Your task to perform on an android device: remove spam from my inbox in the gmail app Image 0: 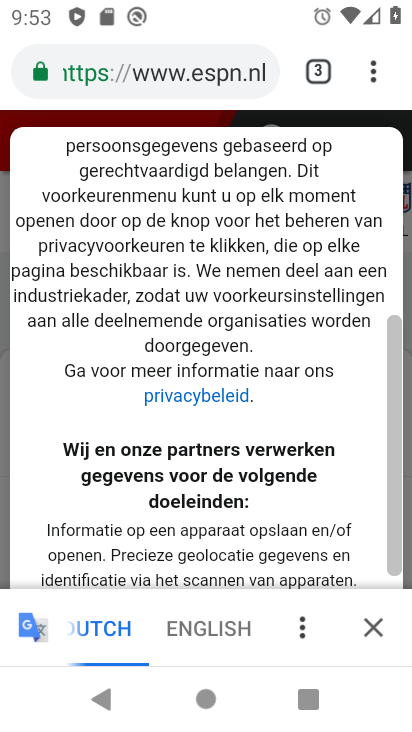
Step 0: press home button
Your task to perform on an android device: remove spam from my inbox in the gmail app Image 1: 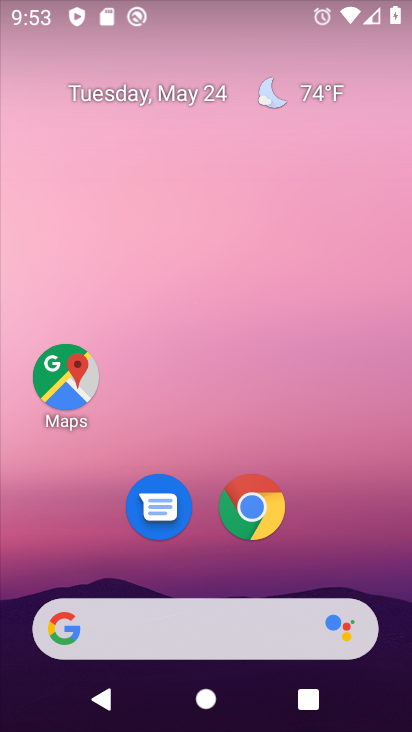
Step 1: drag from (240, 719) to (244, 195)
Your task to perform on an android device: remove spam from my inbox in the gmail app Image 2: 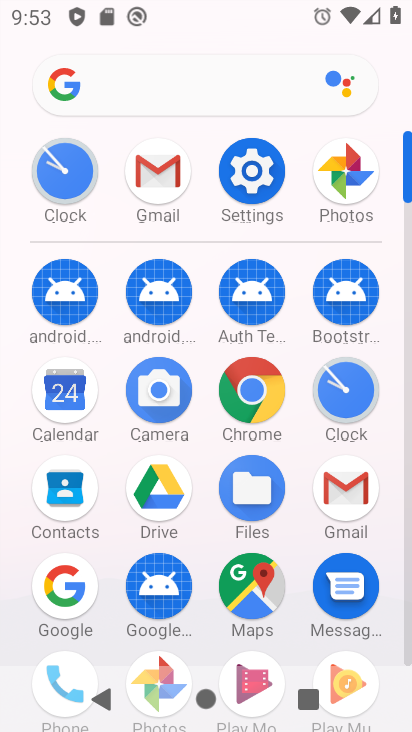
Step 2: click (337, 492)
Your task to perform on an android device: remove spam from my inbox in the gmail app Image 3: 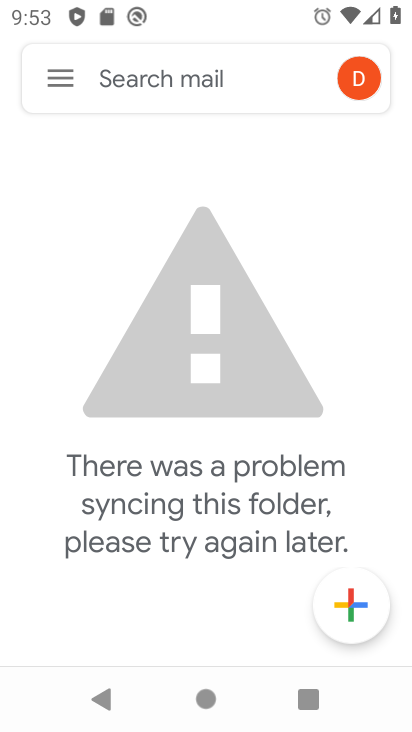
Step 3: click (59, 72)
Your task to perform on an android device: remove spam from my inbox in the gmail app Image 4: 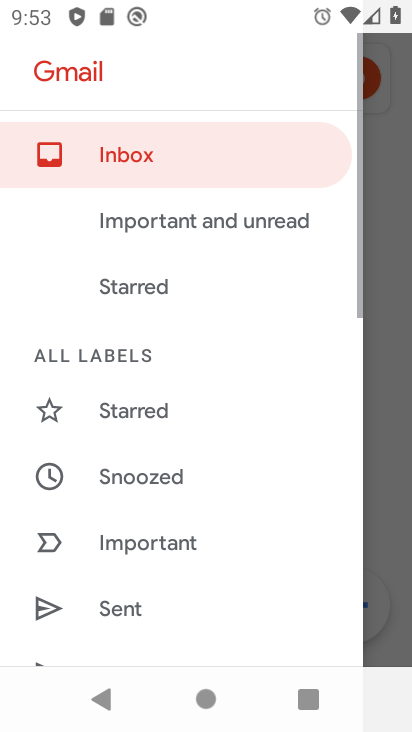
Step 4: click (146, 150)
Your task to perform on an android device: remove spam from my inbox in the gmail app Image 5: 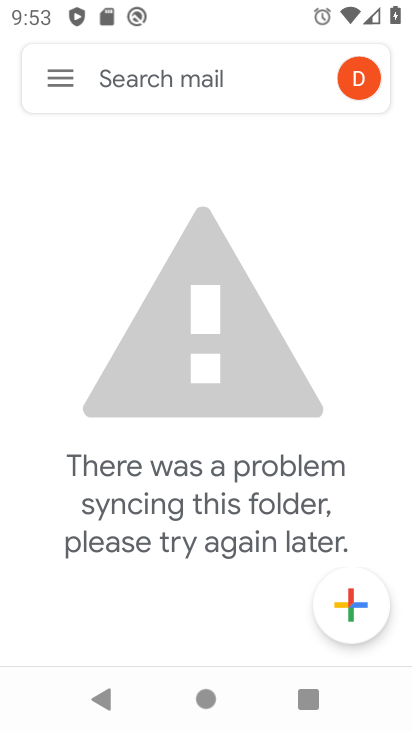
Step 5: task complete